Your task to perform on an android device: toggle translation in the chrome app Image 0: 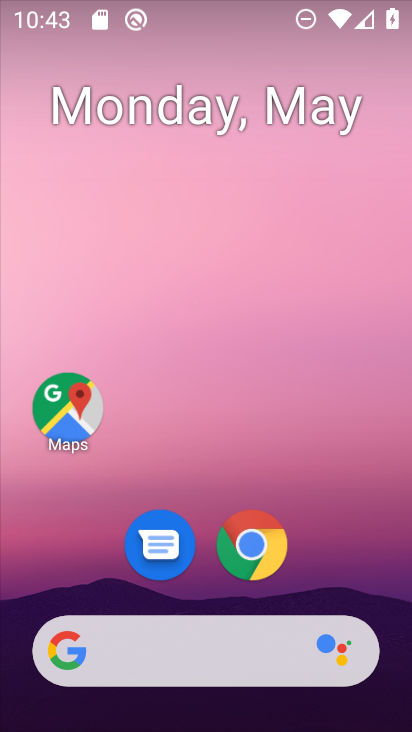
Step 0: click (264, 553)
Your task to perform on an android device: toggle translation in the chrome app Image 1: 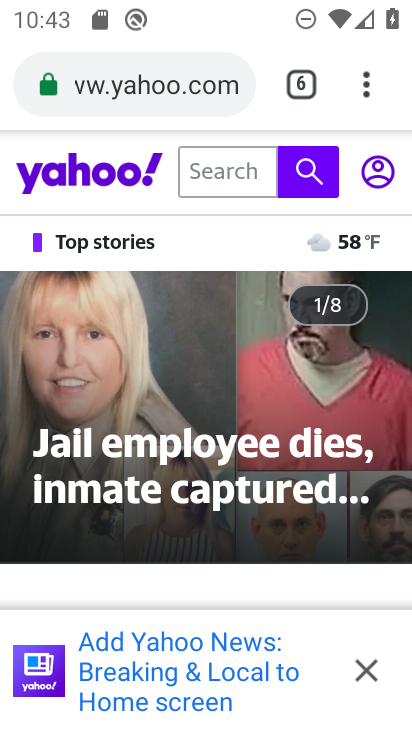
Step 1: click (365, 80)
Your task to perform on an android device: toggle translation in the chrome app Image 2: 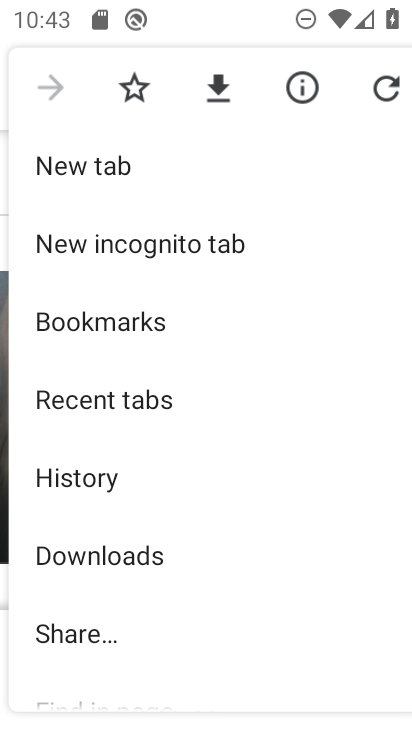
Step 2: drag from (283, 550) to (226, 179)
Your task to perform on an android device: toggle translation in the chrome app Image 3: 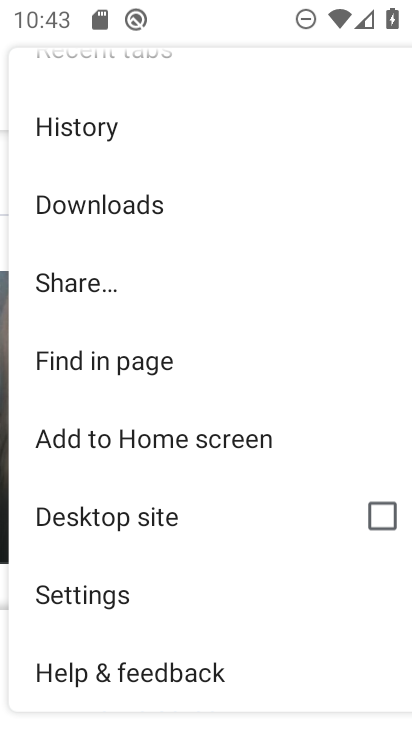
Step 3: click (110, 598)
Your task to perform on an android device: toggle translation in the chrome app Image 4: 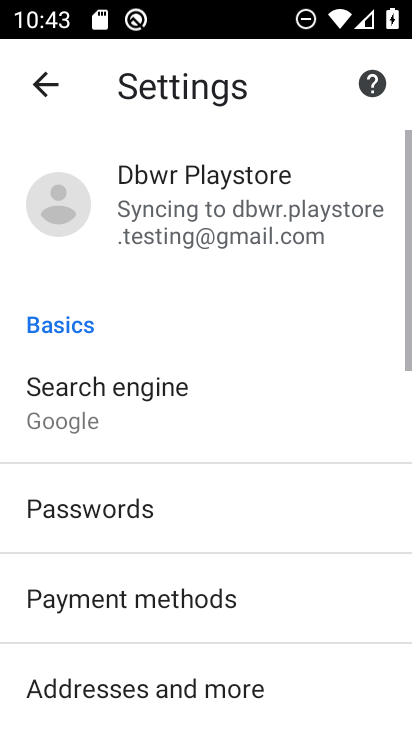
Step 4: drag from (215, 516) to (150, 11)
Your task to perform on an android device: toggle translation in the chrome app Image 5: 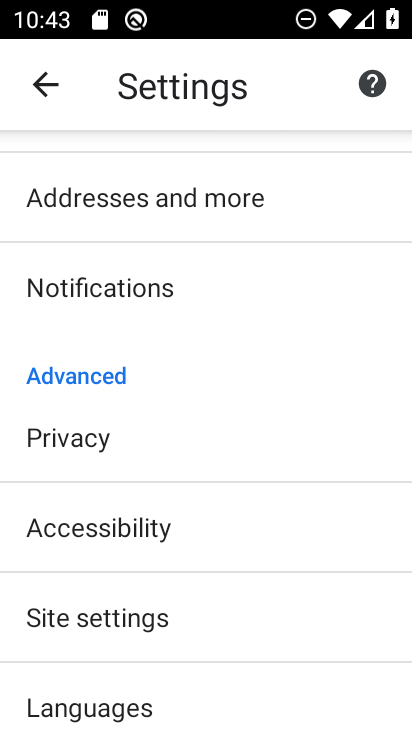
Step 5: click (94, 702)
Your task to perform on an android device: toggle translation in the chrome app Image 6: 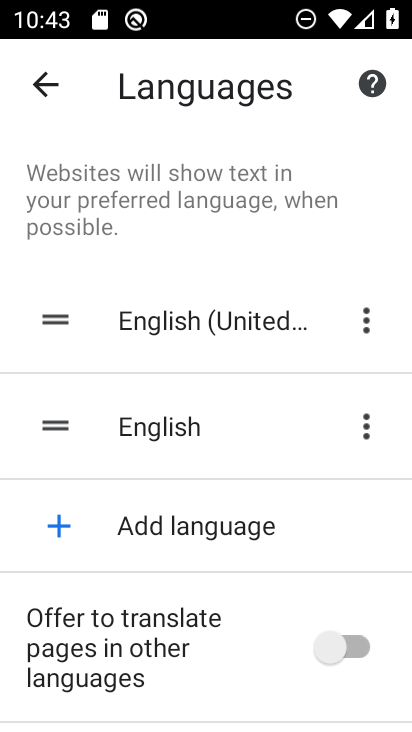
Step 6: click (341, 639)
Your task to perform on an android device: toggle translation in the chrome app Image 7: 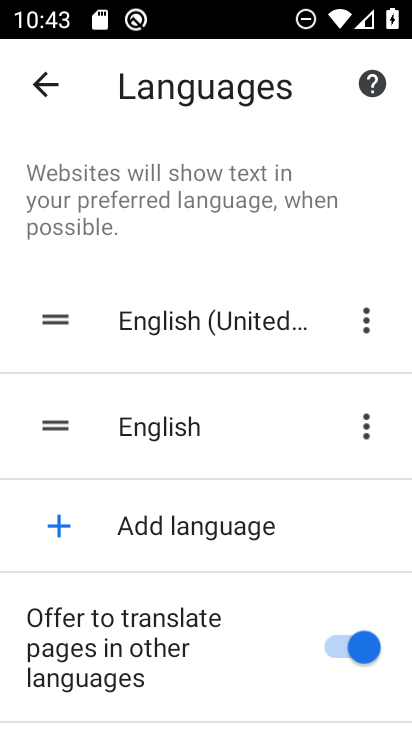
Step 7: task complete